Your task to perform on an android device: open chrome and create a bookmark for the current page Image 0: 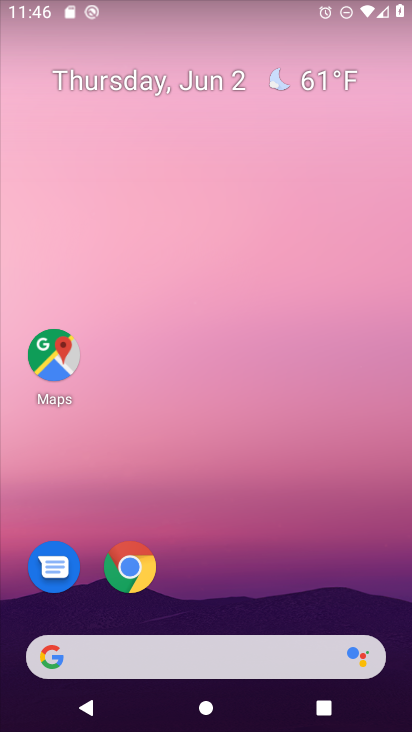
Step 0: click (124, 565)
Your task to perform on an android device: open chrome and create a bookmark for the current page Image 1: 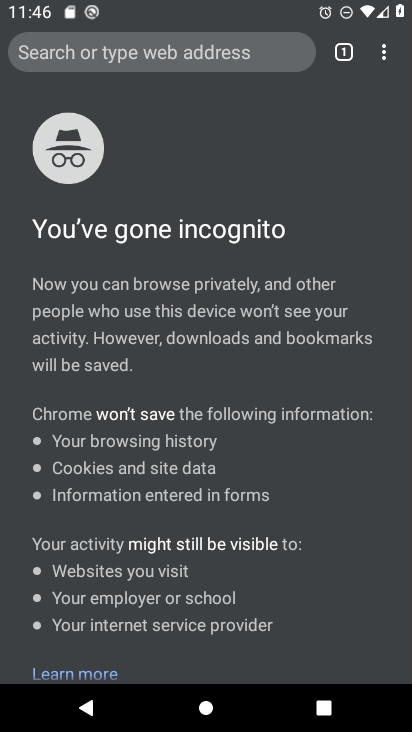
Step 1: task complete